Your task to perform on an android device: Open settings Image 0: 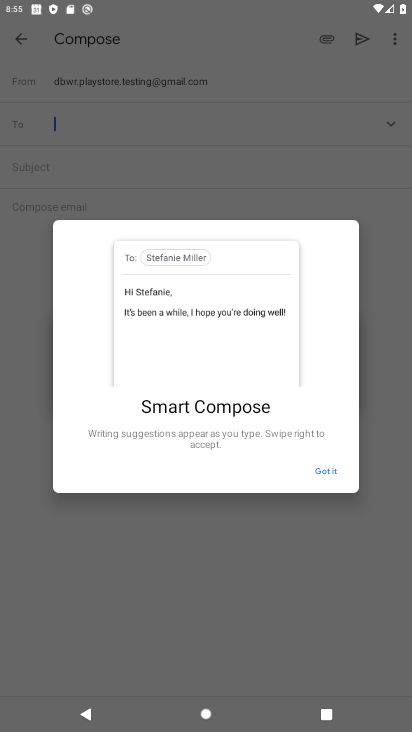
Step 0: press home button
Your task to perform on an android device: Open settings Image 1: 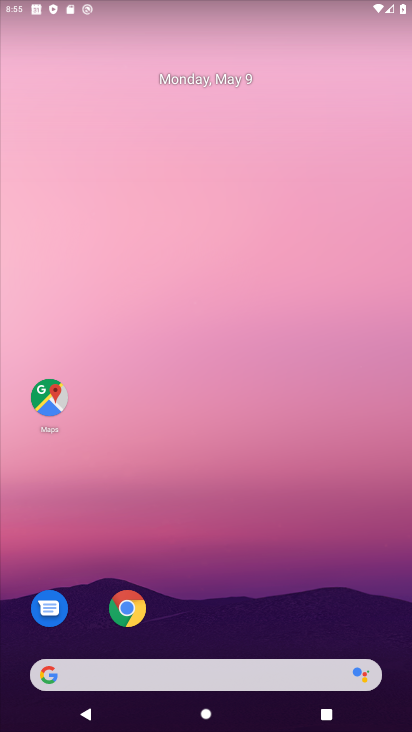
Step 1: drag from (330, 501) to (375, 62)
Your task to perform on an android device: Open settings Image 2: 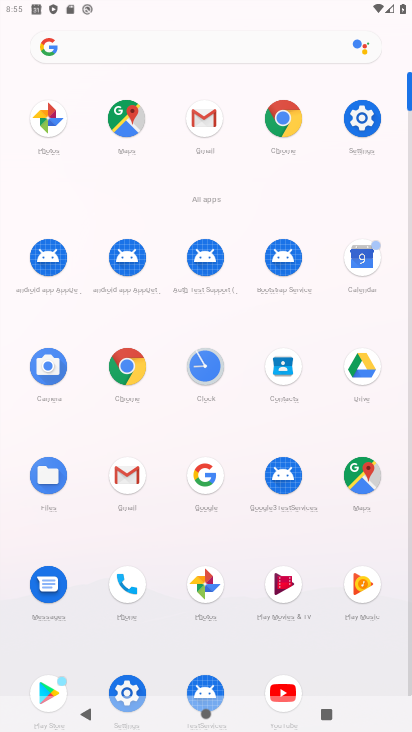
Step 2: click (346, 105)
Your task to perform on an android device: Open settings Image 3: 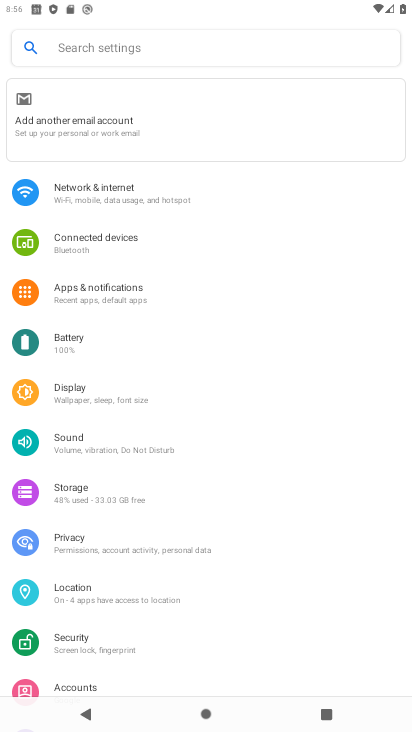
Step 3: task complete